Your task to perform on an android device: Open Wikipedia Image 0: 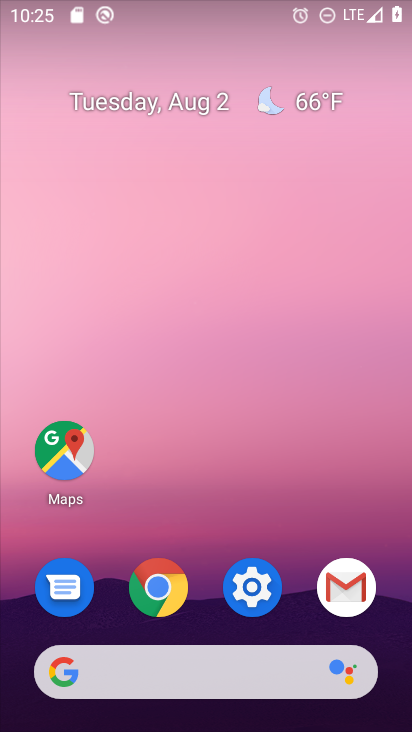
Step 0: click (166, 598)
Your task to perform on an android device: Open Wikipedia Image 1: 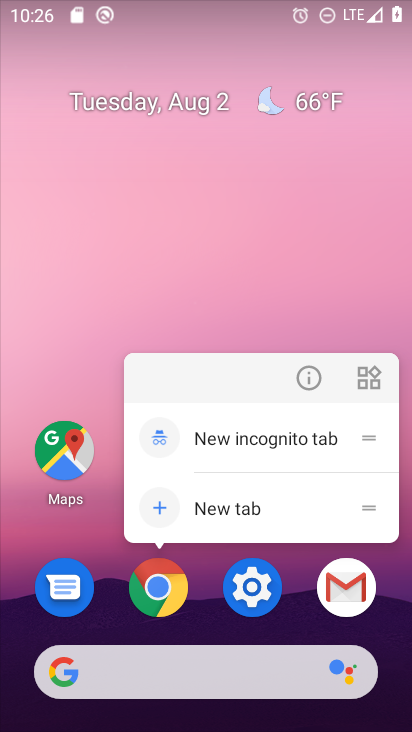
Step 1: click (163, 580)
Your task to perform on an android device: Open Wikipedia Image 2: 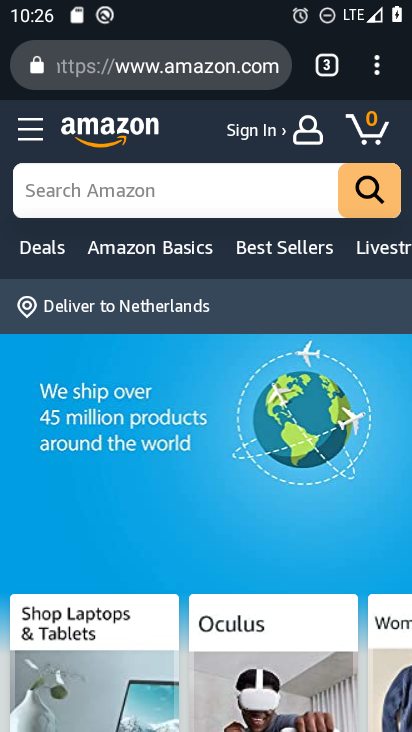
Step 2: click (192, 81)
Your task to perform on an android device: Open Wikipedia Image 3: 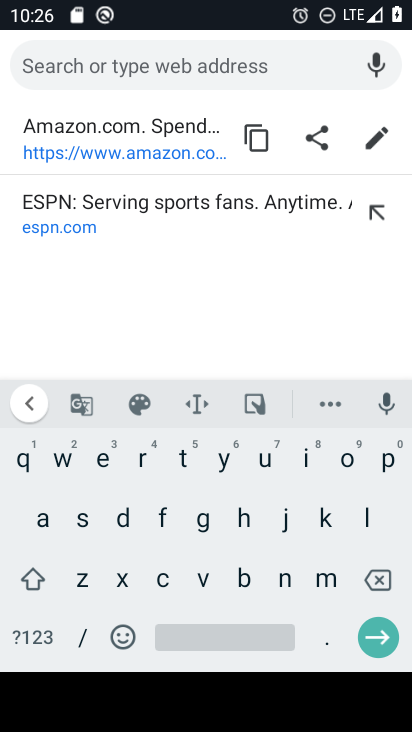
Step 3: click (54, 457)
Your task to perform on an android device: Open Wikipedia Image 4: 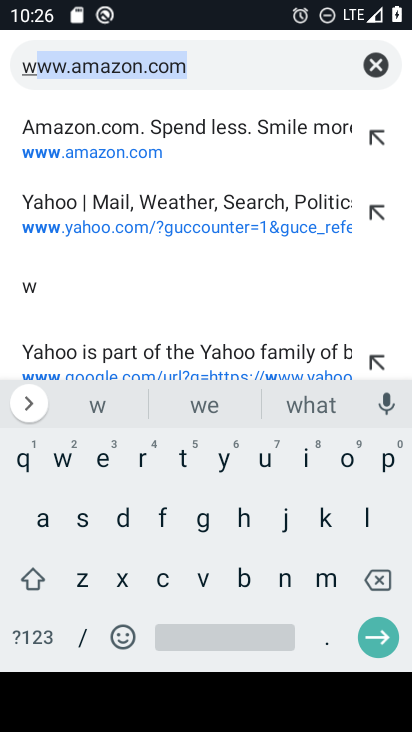
Step 4: click (301, 453)
Your task to perform on an android device: Open Wikipedia Image 5: 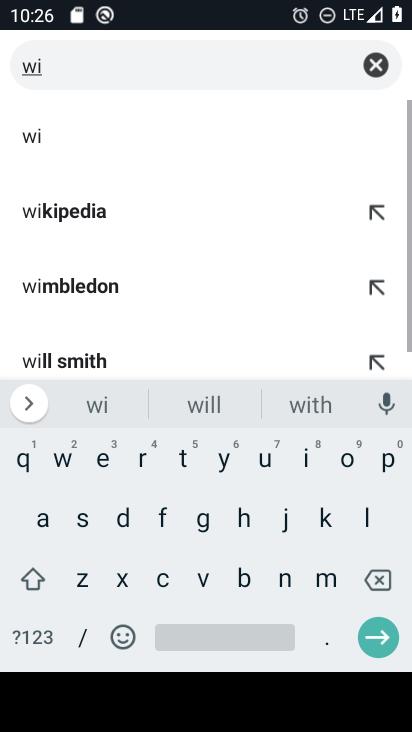
Step 5: click (124, 219)
Your task to perform on an android device: Open Wikipedia Image 6: 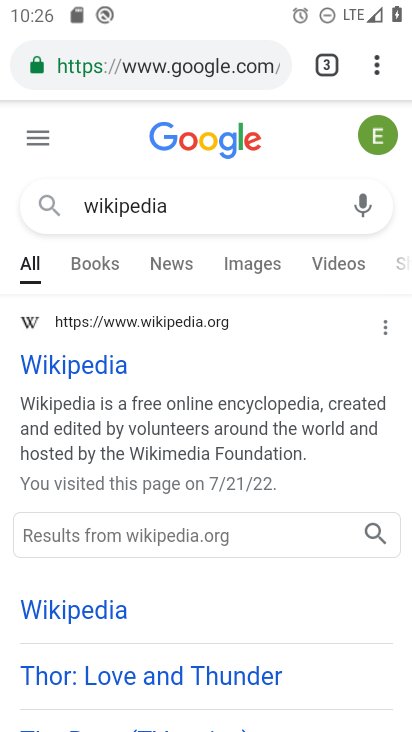
Step 6: click (85, 374)
Your task to perform on an android device: Open Wikipedia Image 7: 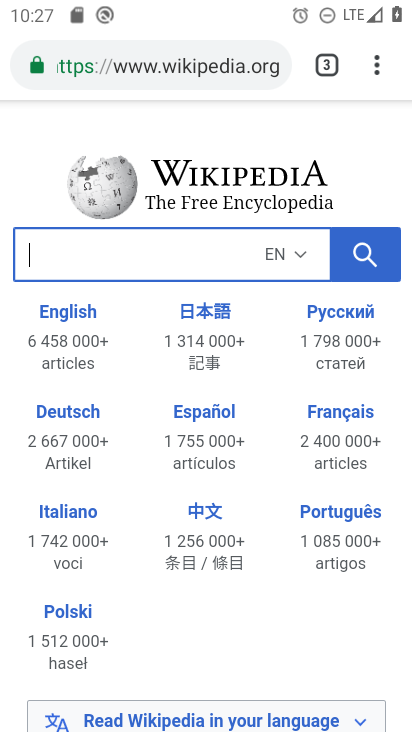
Step 7: task complete